Your task to perform on an android device: Open Google Maps and go to "Timeline" Image 0: 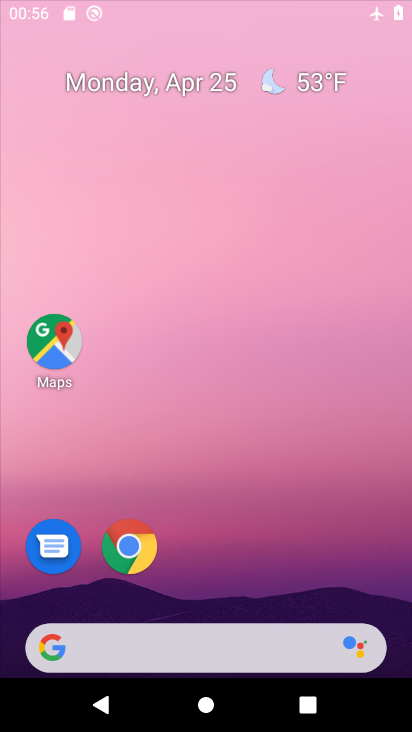
Step 0: drag from (300, 492) to (288, 120)
Your task to perform on an android device: Open Google Maps and go to "Timeline" Image 1: 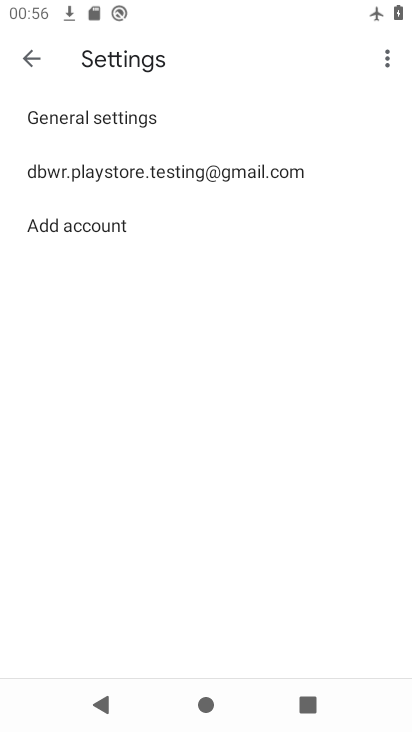
Step 1: press home button
Your task to perform on an android device: Open Google Maps and go to "Timeline" Image 2: 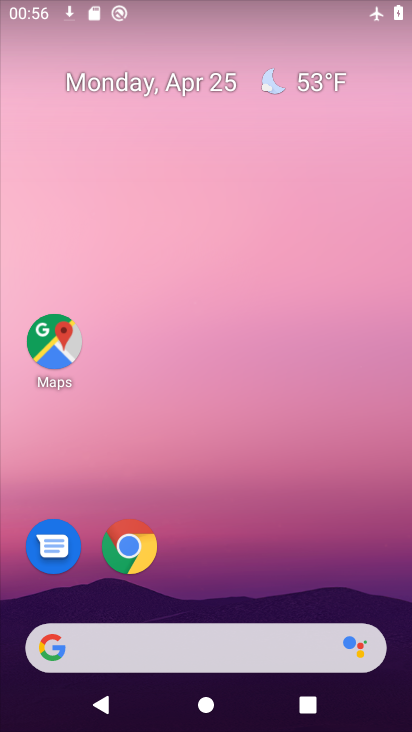
Step 2: drag from (233, 557) to (268, 18)
Your task to perform on an android device: Open Google Maps and go to "Timeline" Image 3: 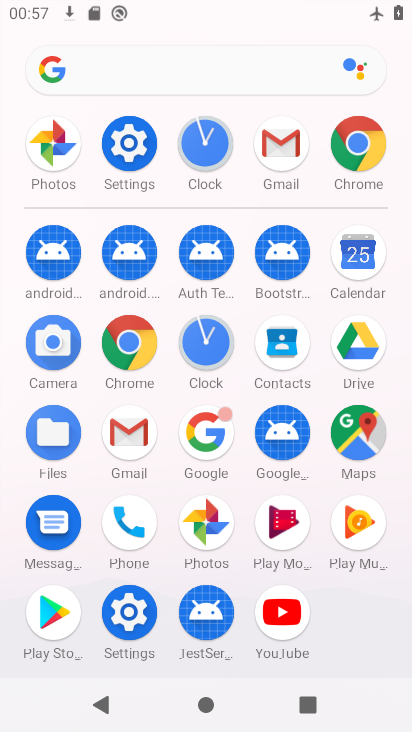
Step 3: click (365, 447)
Your task to perform on an android device: Open Google Maps and go to "Timeline" Image 4: 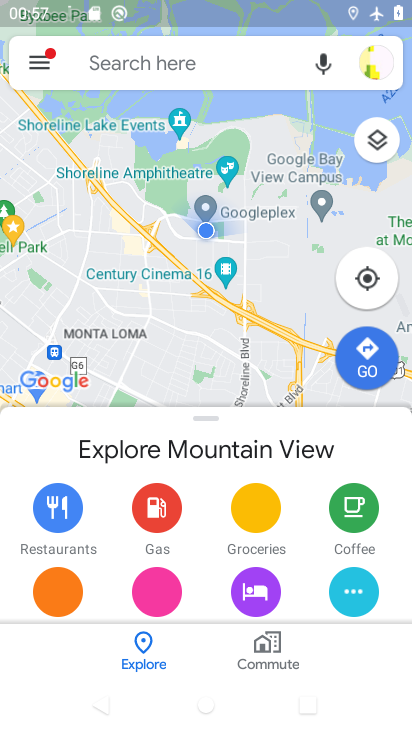
Step 4: click (30, 63)
Your task to perform on an android device: Open Google Maps and go to "Timeline" Image 5: 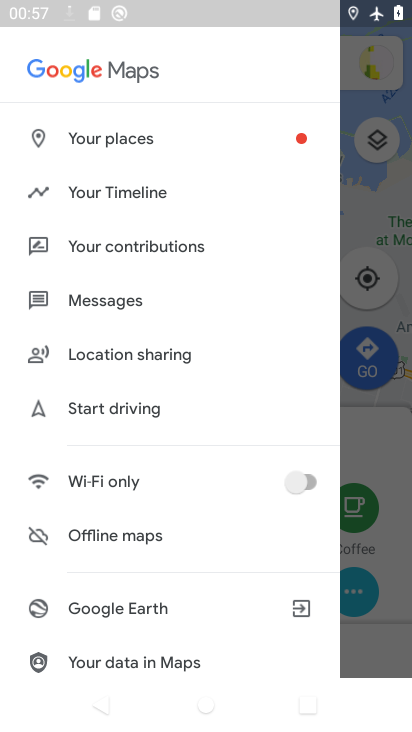
Step 5: click (41, 199)
Your task to perform on an android device: Open Google Maps and go to "Timeline" Image 6: 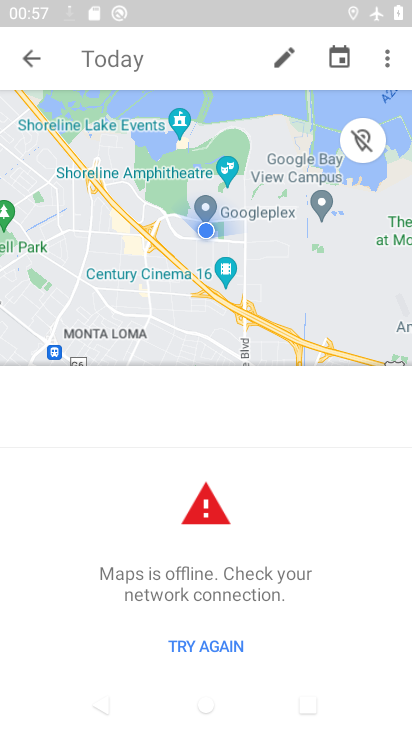
Step 6: task complete